Your task to perform on an android device: Go to calendar. Show me events next week Image 0: 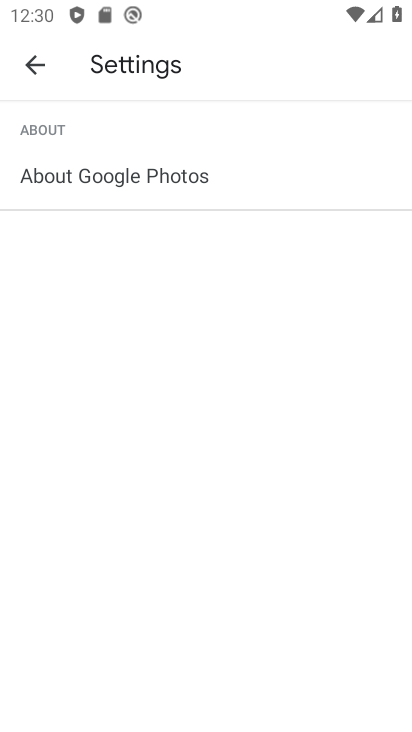
Step 0: press home button
Your task to perform on an android device: Go to calendar. Show me events next week Image 1: 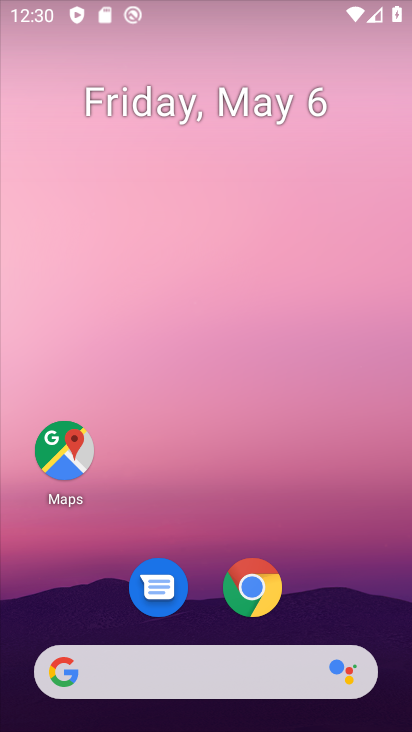
Step 1: drag from (137, 440) to (322, 142)
Your task to perform on an android device: Go to calendar. Show me events next week Image 2: 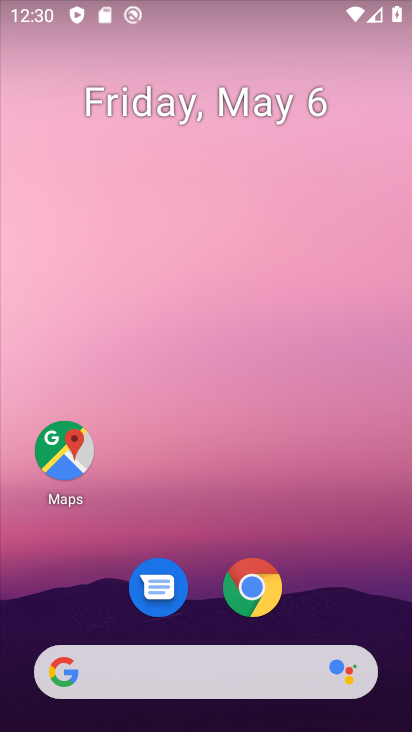
Step 2: drag from (77, 578) to (286, 205)
Your task to perform on an android device: Go to calendar. Show me events next week Image 3: 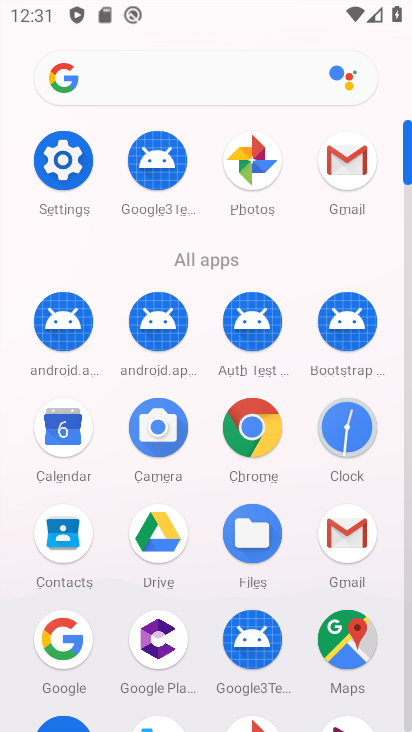
Step 3: click (68, 428)
Your task to perform on an android device: Go to calendar. Show me events next week Image 4: 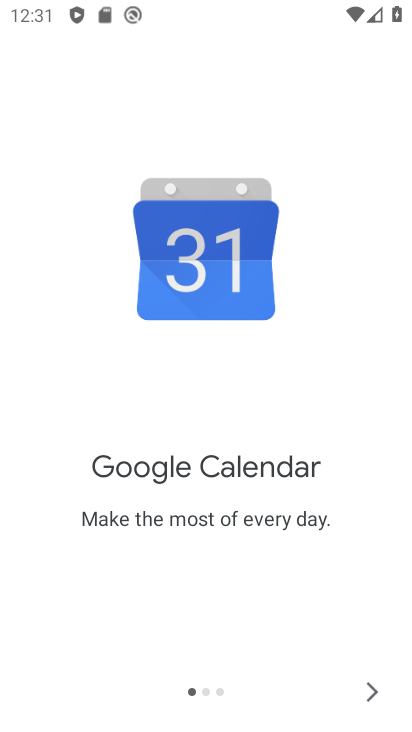
Step 4: click (370, 700)
Your task to perform on an android device: Go to calendar. Show me events next week Image 5: 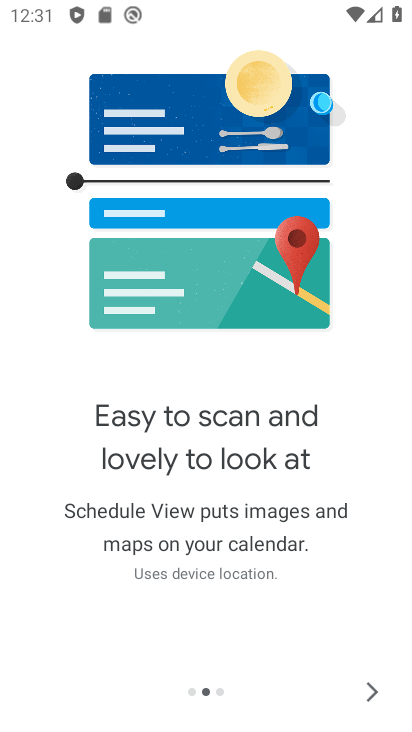
Step 5: click (370, 700)
Your task to perform on an android device: Go to calendar. Show me events next week Image 6: 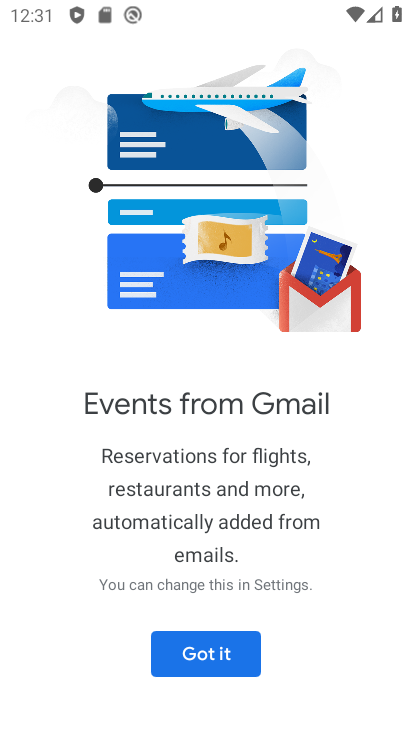
Step 6: click (237, 653)
Your task to perform on an android device: Go to calendar. Show me events next week Image 7: 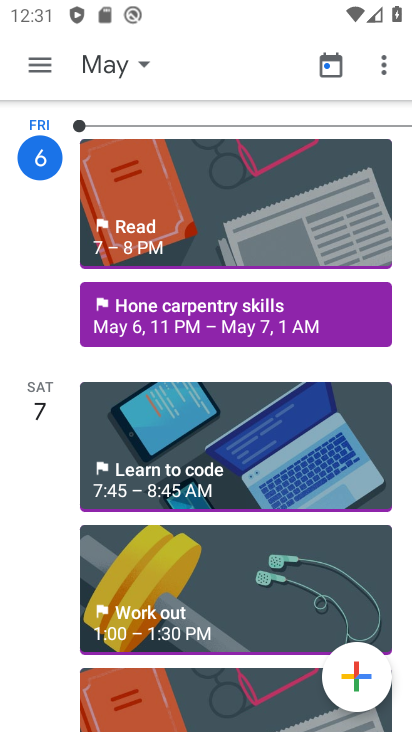
Step 7: click (124, 62)
Your task to perform on an android device: Go to calendar. Show me events next week Image 8: 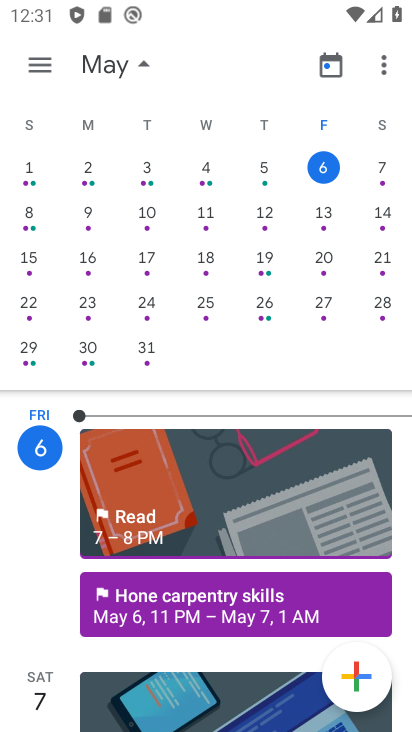
Step 8: click (384, 168)
Your task to perform on an android device: Go to calendar. Show me events next week Image 9: 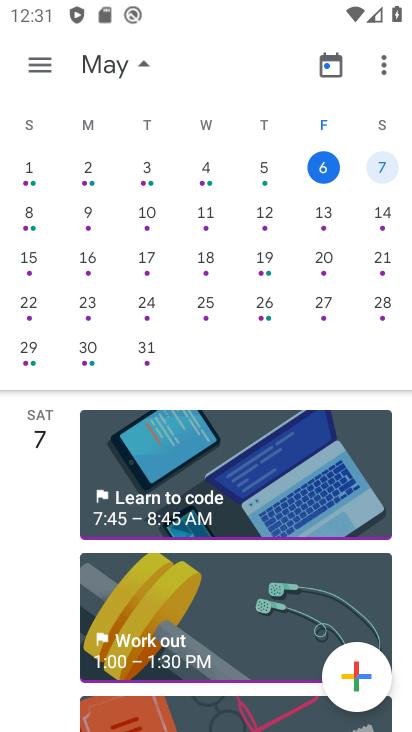
Step 9: click (41, 258)
Your task to perform on an android device: Go to calendar. Show me events next week Image 10: 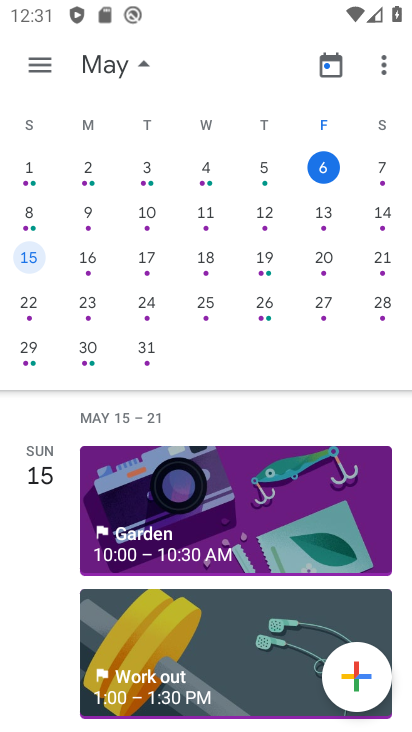
Step 10: click (84, 256)
Your task to perform on an android device: Go to calendar. Show me events next week Image 11: 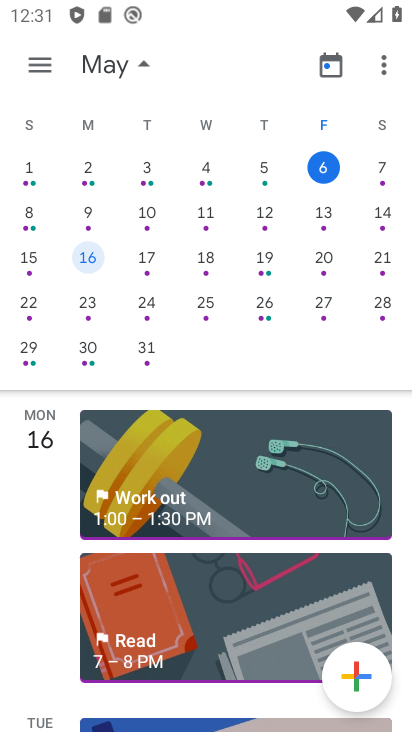
Step 11: click (144, 258)
Your task to perform on an android device: Go to calendar. Show me events next week Image 12: 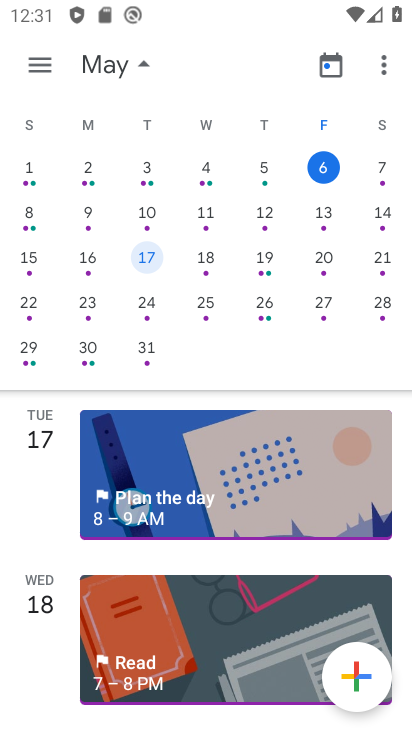
Step 12: click (206, 256)
Your task to perform on an android device: Go to calendar. Show me events next week Image 13: 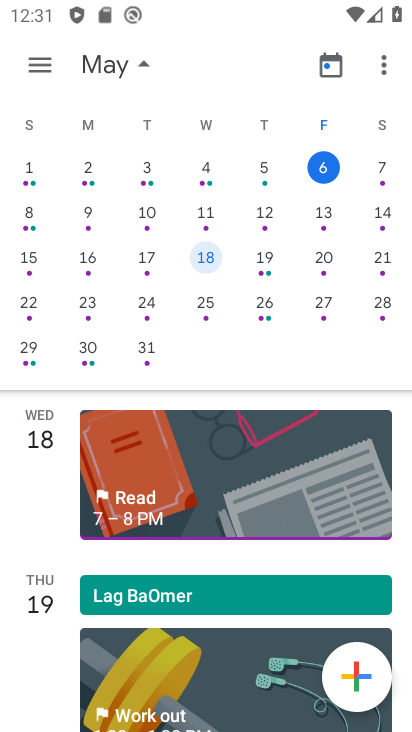
Step 13: click (256, 254)
Your task to perform on an android device: Go to calendar. Show me events next week Image 14: 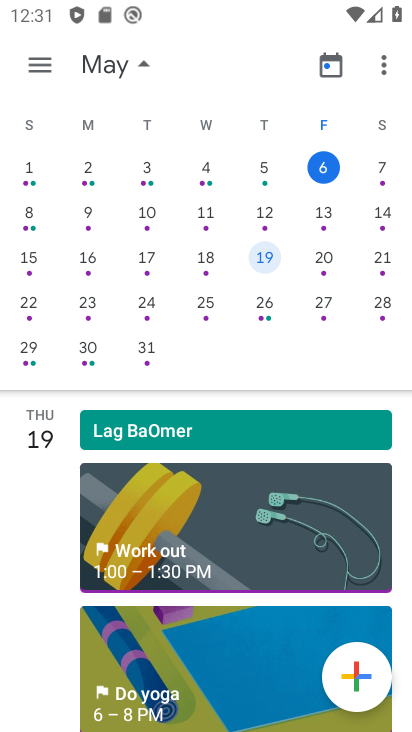
Step 14: task complete